Your task to perform on an android device: Open calendar and show me the second week of next month Image 0: 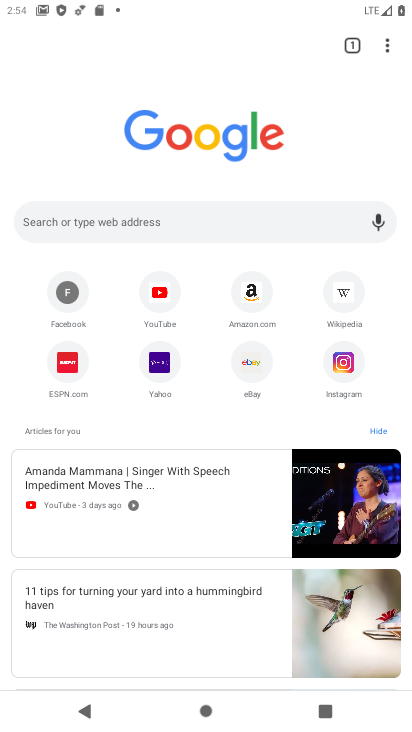
Step 0: press home button
Your task to perform on an android device: Open calendar and show me the second week of next month Image 1: 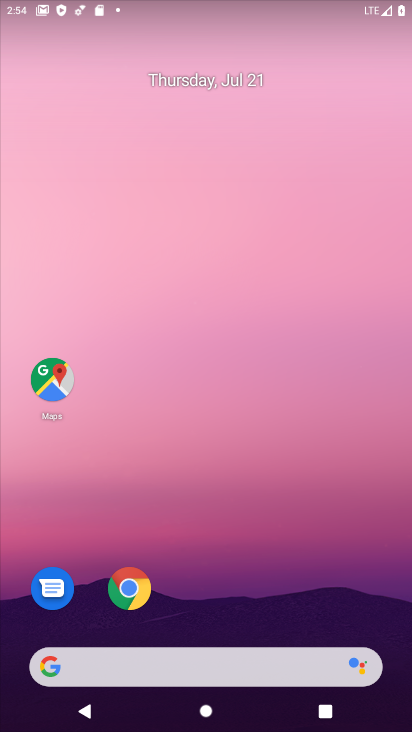
Step 1: drag from (247, 626) to (306, 93)
Your task to perform on an android device: Open calendar and show me the second week of next month Image 2: 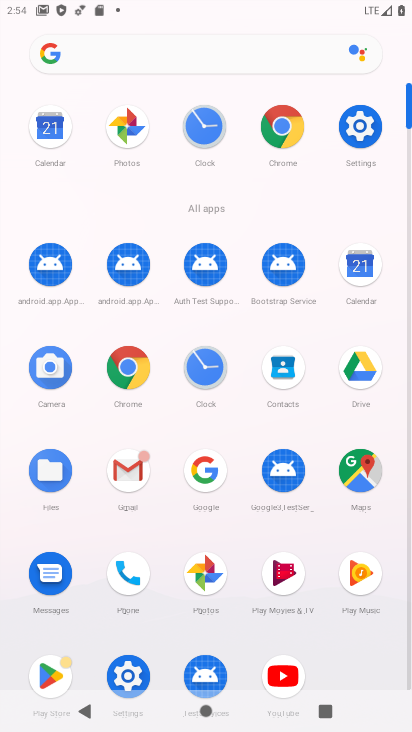
Step 2: click (341, 247)
Your task to perform on an android device: Open calendar and show me the second week of next month Image 3: 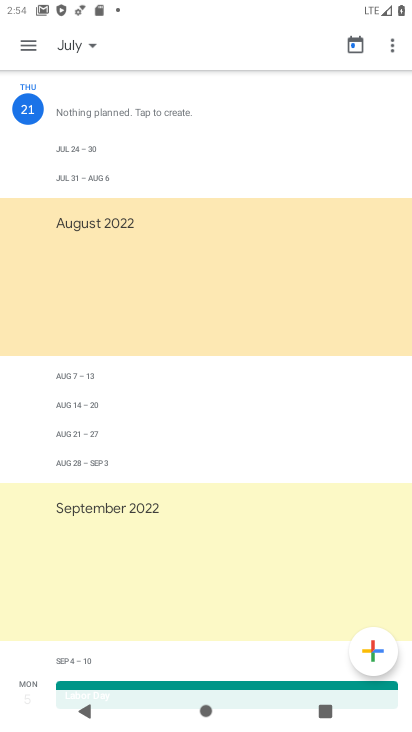
Step 3: click (76, 42)
Your task to perform on an android device: Open calendar and show me the second week of next month Image 4: 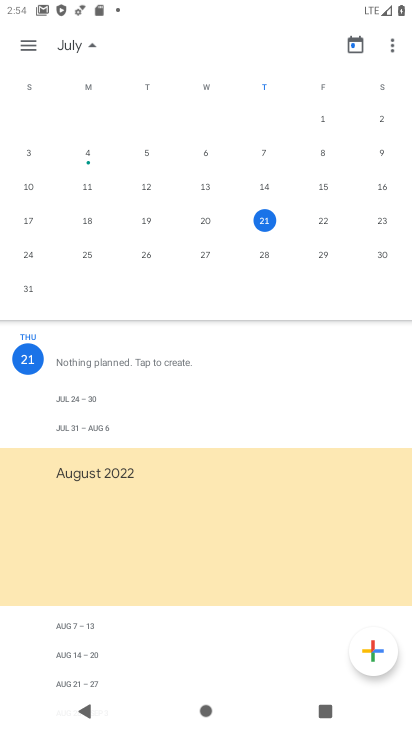
Step 4: drag from (404, 224) to (48, 129)
Your task to perform on an android device: Open calendar and show me the second week of next month Image 5: 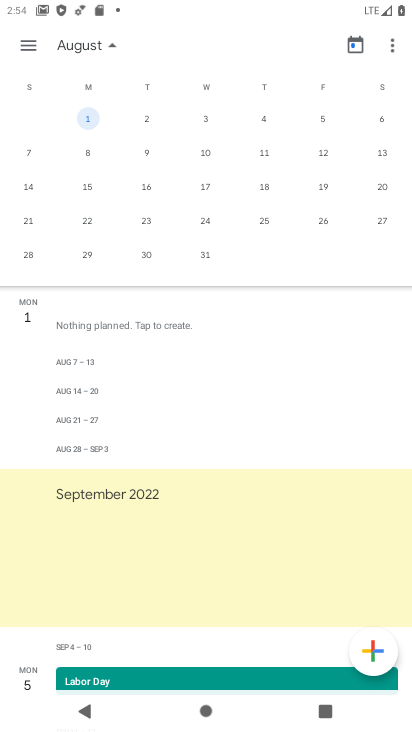
Step 5: click (30, 154)
Your task to perform on an android device: Open calendar and show me the second week of next month Image 6: 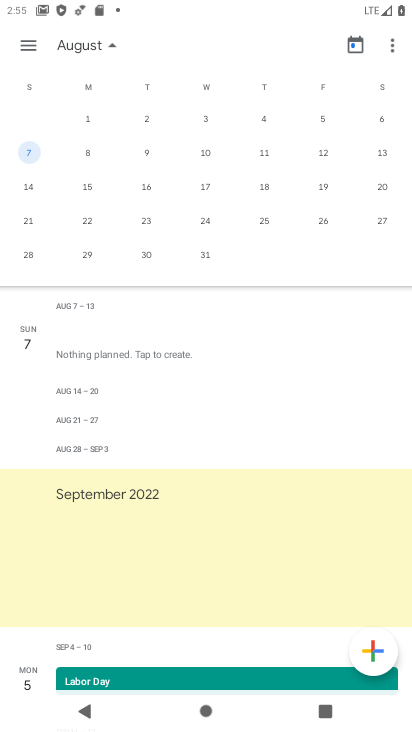
Step 6: task complete